Your task to perform on an android device: clear all cookies in the chrome app Image 0: 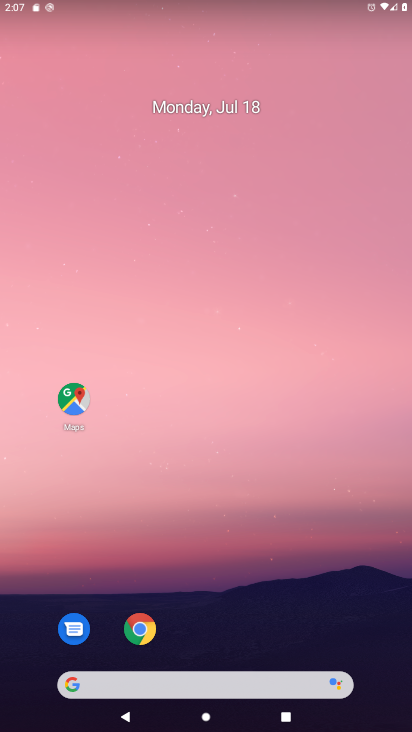
Step 0: press home button
Your task to perform on an android device: clear all cookies in the chrome app Image 1: 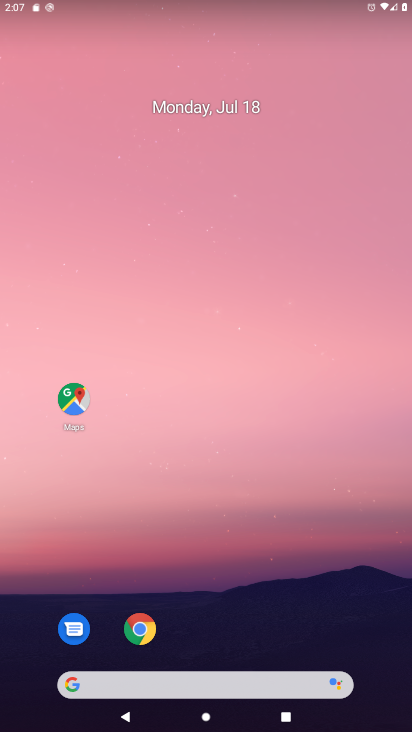
Step 1: click (135, 631)
Your task to perform on an android device: clear all cookies in the chrome app Image 2: 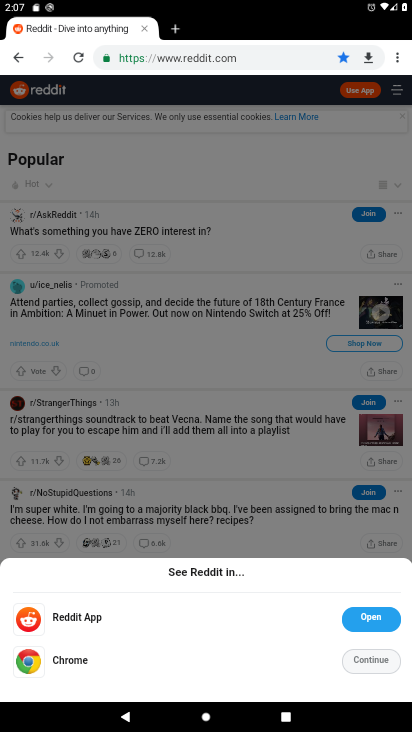
Step 2: click (396, 54)
Your task to perform on an android device: clear all cookies in the chrome app Image 3: 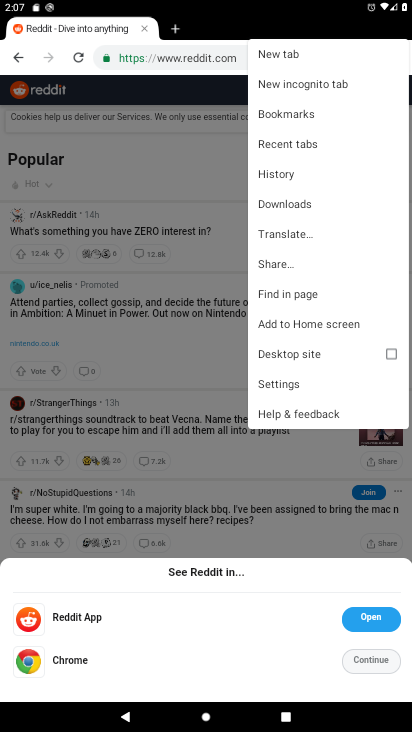
Step 3: click (280, 171)
Your task to perform on an android device: clear all cookies in the chrome app Image 4: 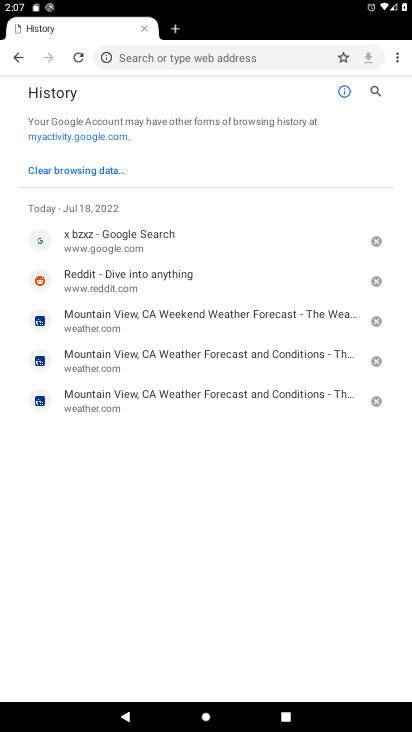
Step 4: click (58, 173)
Your task to perform on an android device: clear all cookies in the chrome app Image 5: 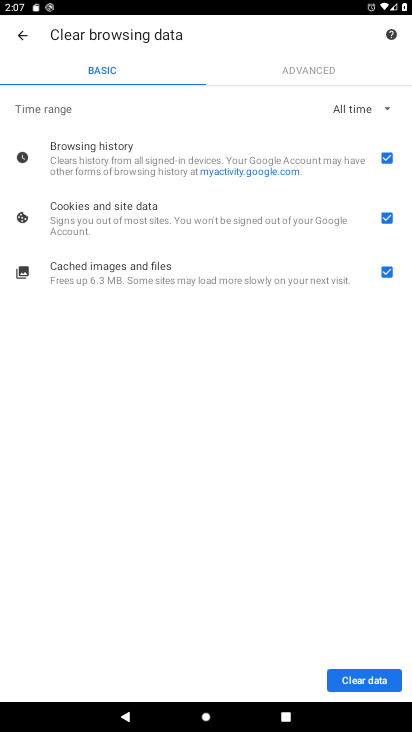
Step 5: click (388, 160)
Your task to perform on an android device: clear all cookies in the chrome app Image 6: 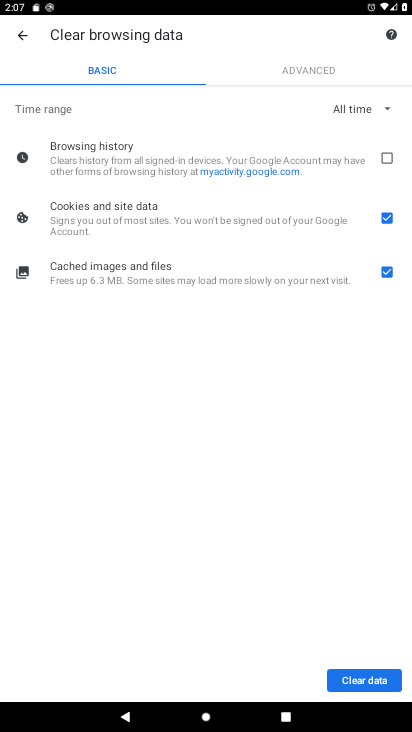
Step 6: click (381, 272)
Your task to perform on an android device: clear all cookies in the chrome app Image 7: 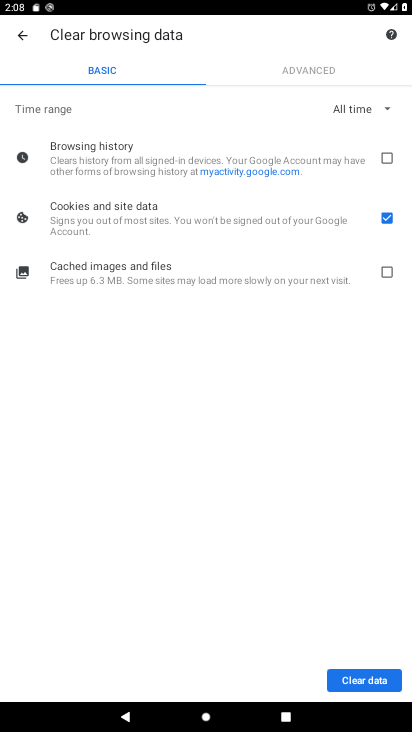
Step 7: click (347, 680)
Your task to perform on an android device: clear all cookies in the chrome app Image 8: 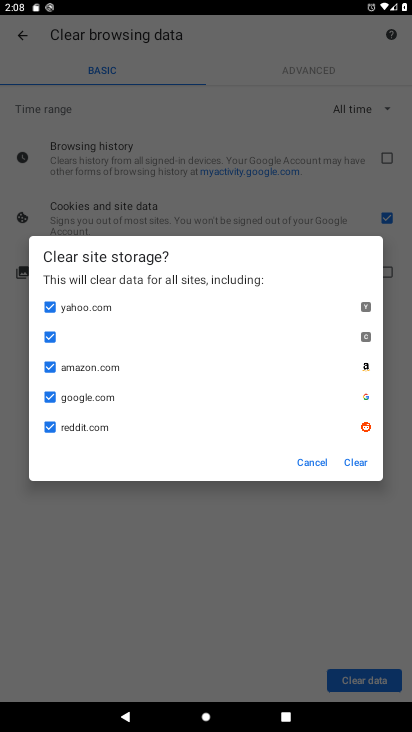
Step 8: click (359, 460)
Your task to perform on an android device: clear all cookies in the chrome app Image 9: 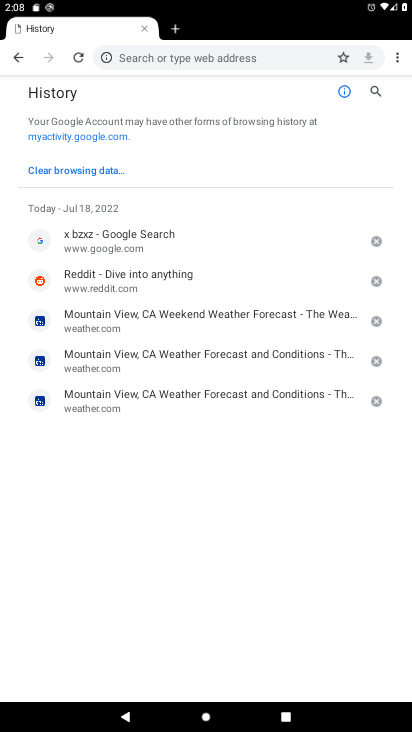
Step 9: task complete